Your task to perform on an android device: delete the emails in spam in the gmail app Image 0: 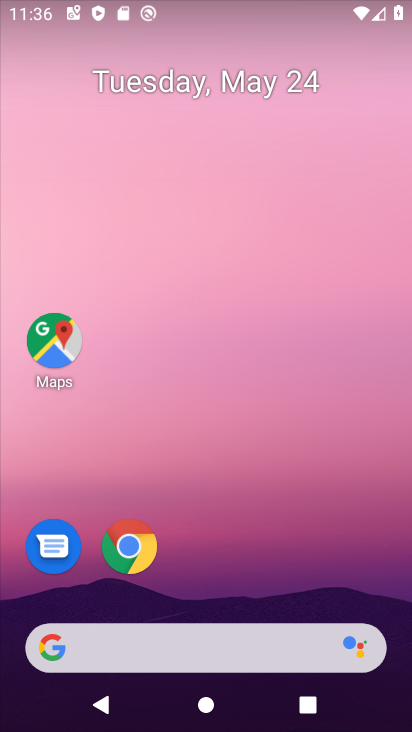
Step 0: drag from (259, 601) to (247, 162)
Your task to perform on an android device: delete the emails in spam in the gmail app Image 1: 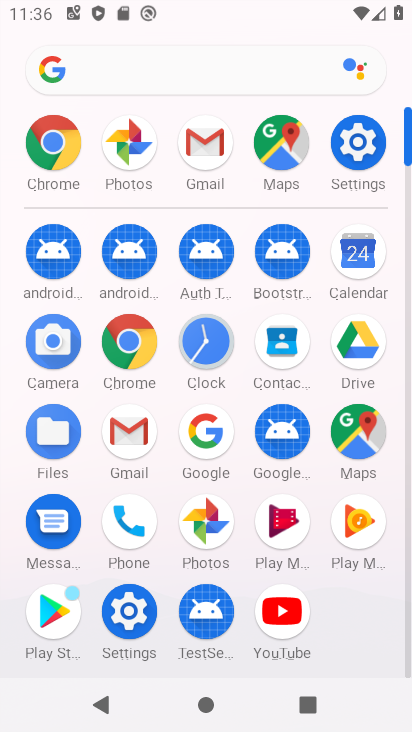
Step 1: click (216, 141)
Your task to perform on an android device: delete the emails in spam in the gmail app Image 2: 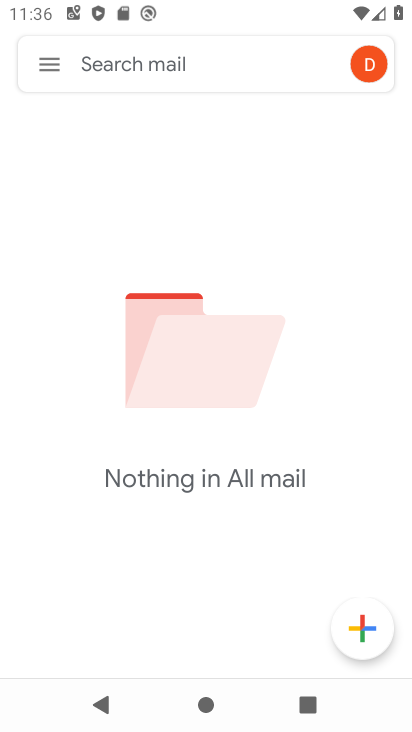
Step 2: click (57, 75)
Your task to perform on an android device: delete the emails in spam in the gmail app Image 3: 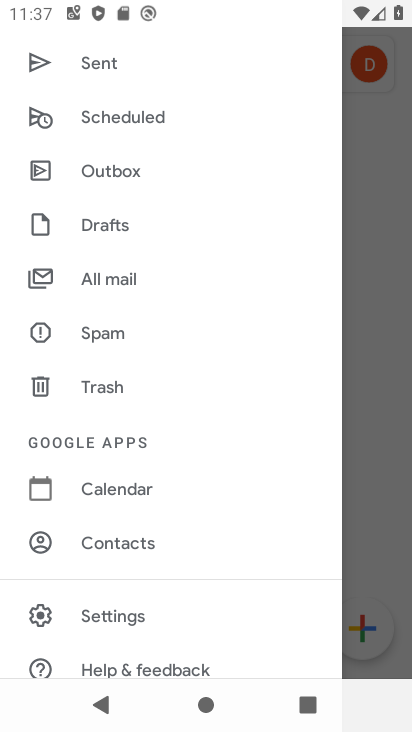
Step 3: click (123, 330)
Your task to perform on an android device: delete the emails in spam in the gmail app Image 4: 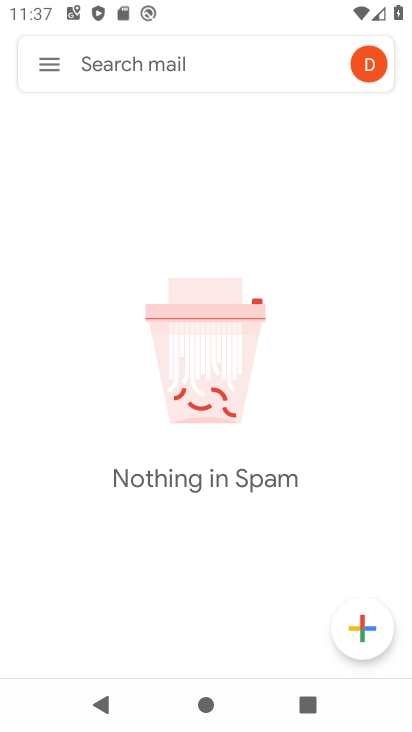
Step 4: task complete